Your task to perform on an android device: Open Wikipedia Image 0: 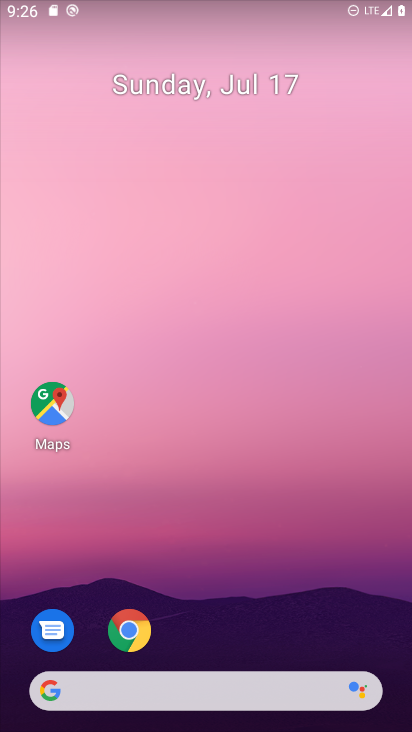
Step 0: drag from (248, 628) to (231, 124)
Your task to perform on an android device: Open Wikipedia Image 1: 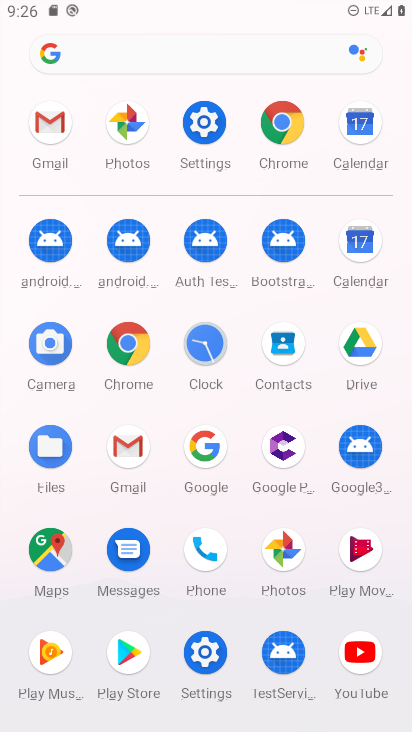
Step 1: click (269, 137)
Your task to perform on an android device: Open Wikipedia Image 2: 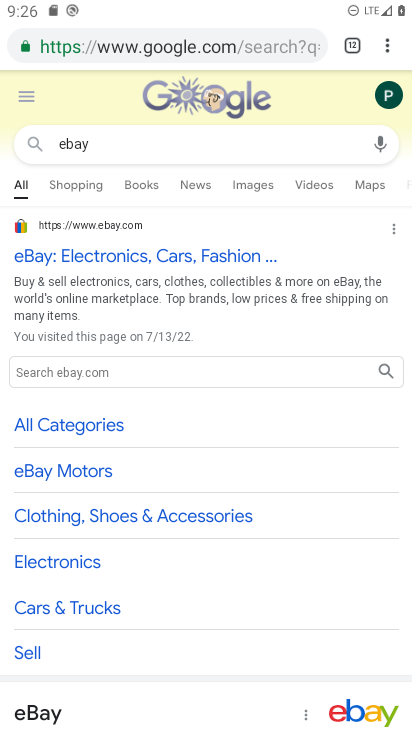
Step 2: click (380, 38)
Your task to perform on an android device: Open Wikipedia Image 3: 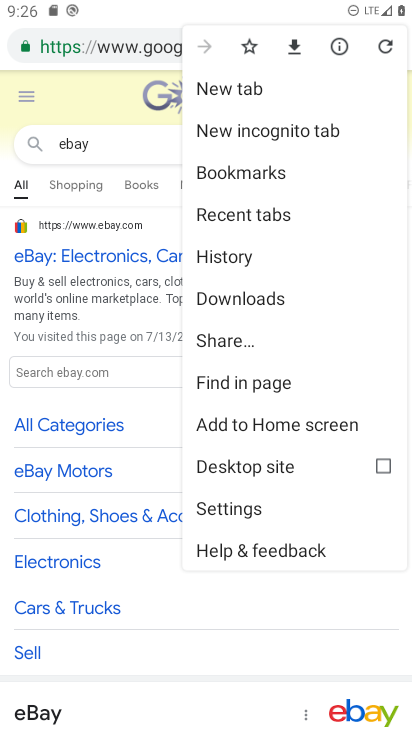
Step 3: click (212, 96)
Your task to perform on an android device: Open Wikipedia Image 4: 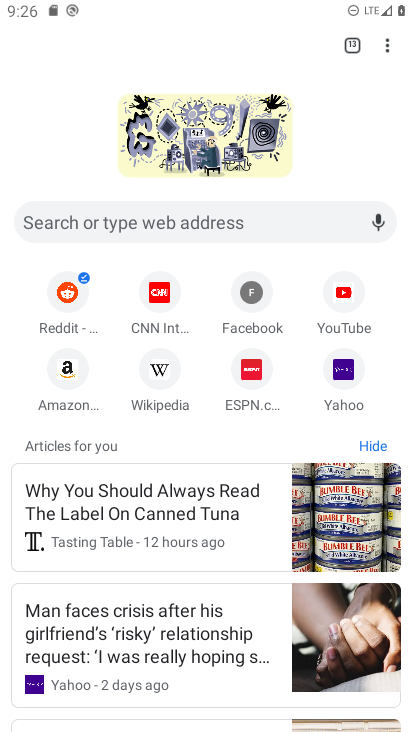
Step 4: click (147, 364)
Your task to perform on an android device: Open Wikipedia Image 5: 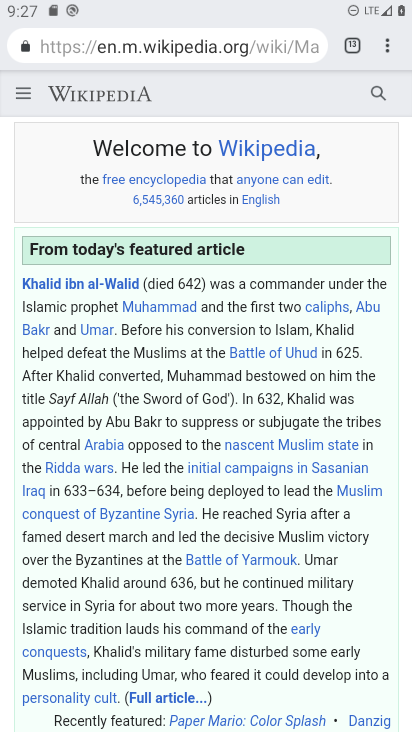
Step 5: task complete